Your task to perform on an android device: turn on location history Image 0: 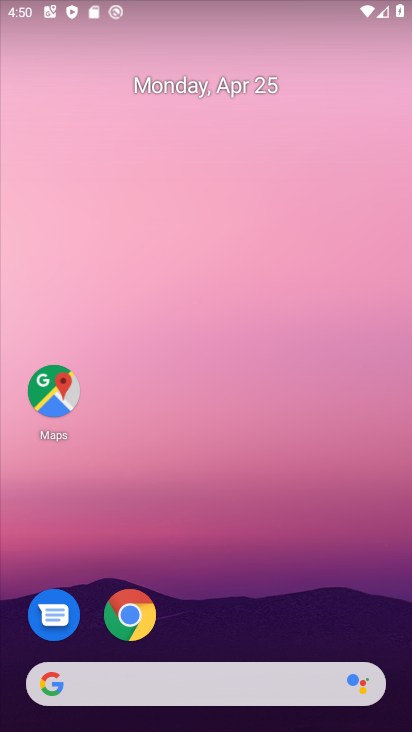
Step 0: drag from (320, 597) to (368, 52)
Your task to perform on an android device: turn on location history Image 1: 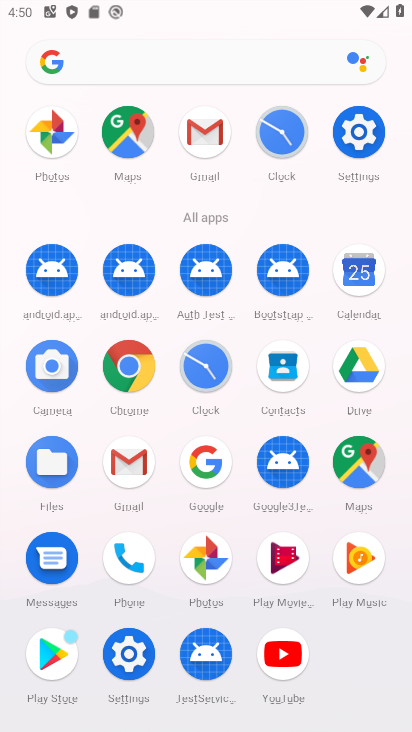
Step 1: click (374, 144)
Your task to perform on an android device: turn on location history Image 2: 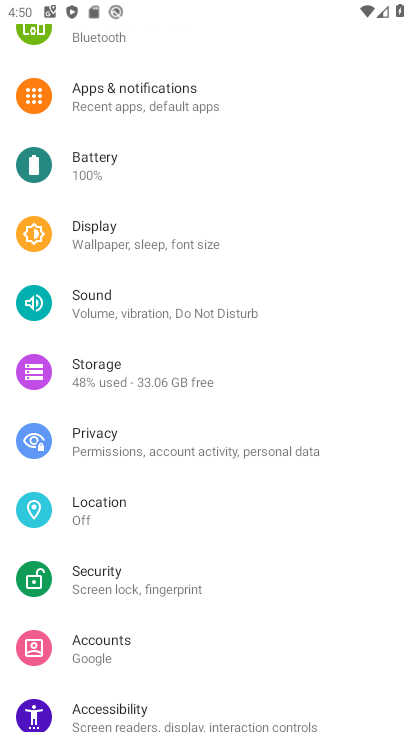
Step 2: click (124, 516)
Your task to perform on an android device: turn on location history Image 3: 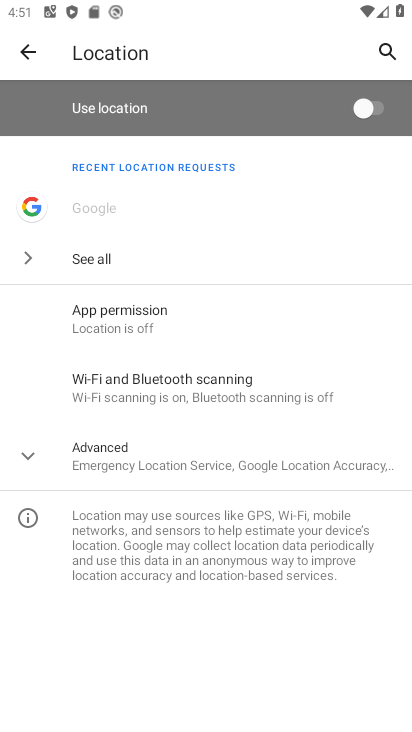
Step 3: click (382, 112)
Your task to perform on an android device: turn on location history Image 4: 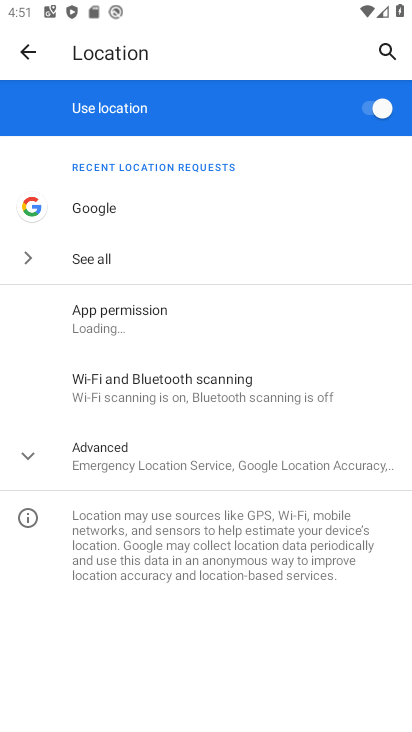
Step 4: task complete